Your task to perform on an android device: Go to location settings Image 0: 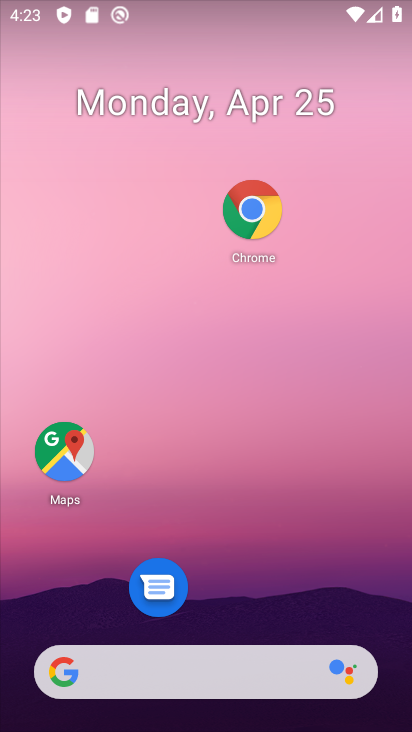
Step 0: click (63, 461)
Your task to perform on an android device: Go to location settings Image 1: 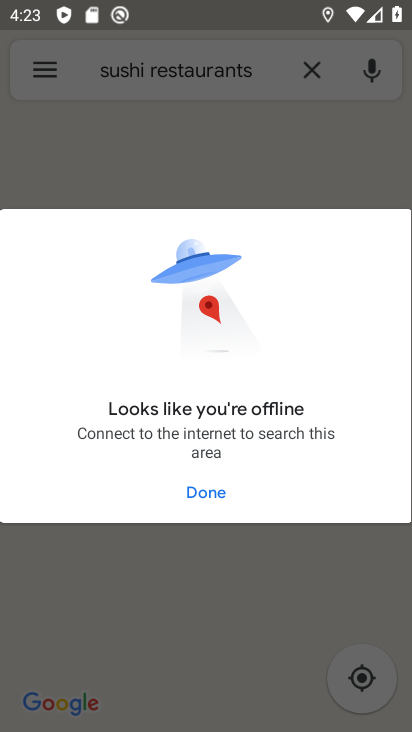
Step 1: click (210, 487)
Your task to perform on an android device: Go to location settings Image 2: 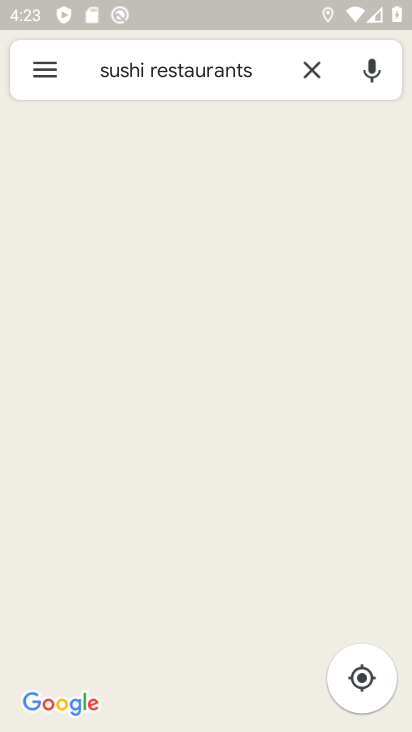
Step 2: click (39, 74)
Your task to perform on an android device: Go to location settings Image 3: 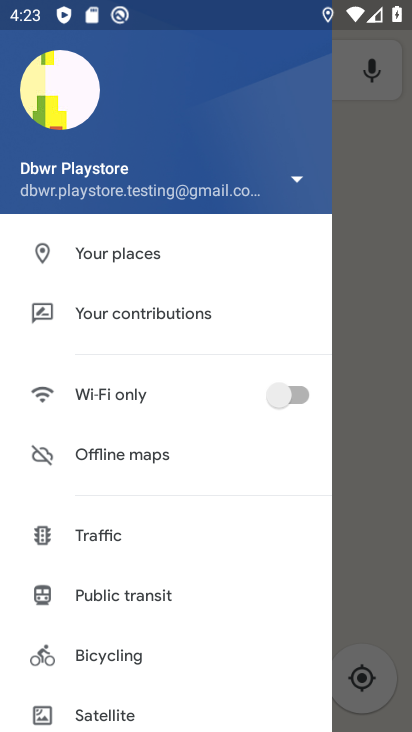
Step 3: task complete